Your task to perform on an android device: Clear the cart on target. Image 0: 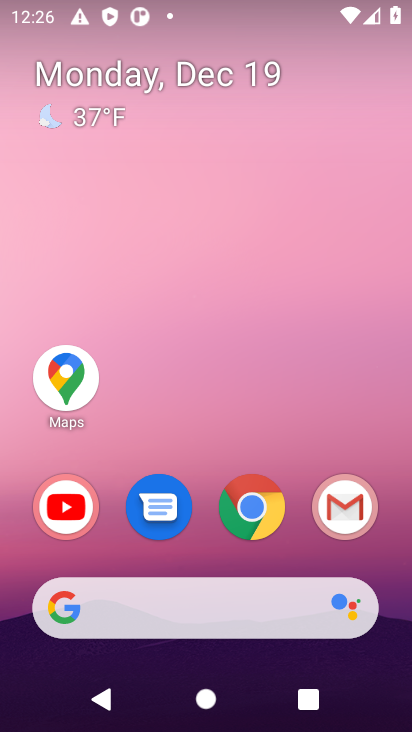
Step 0: click (251, 510)
Your task to perform on an android device: Clear the cart on target. Image 1: 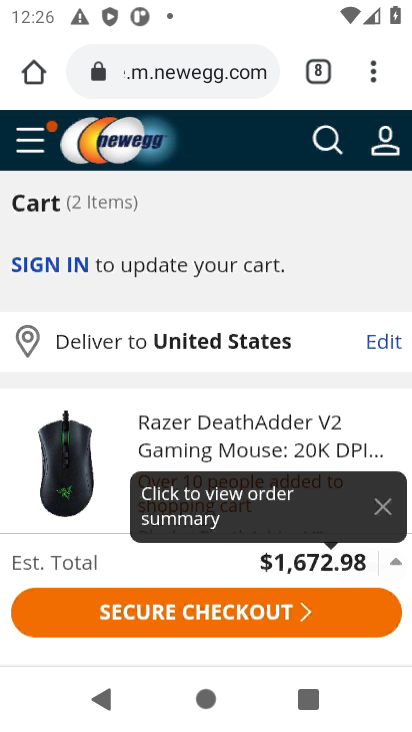
Step 1: click (191, 67)
Your task to perform on an android device: Clear the cart on target. Image 2: 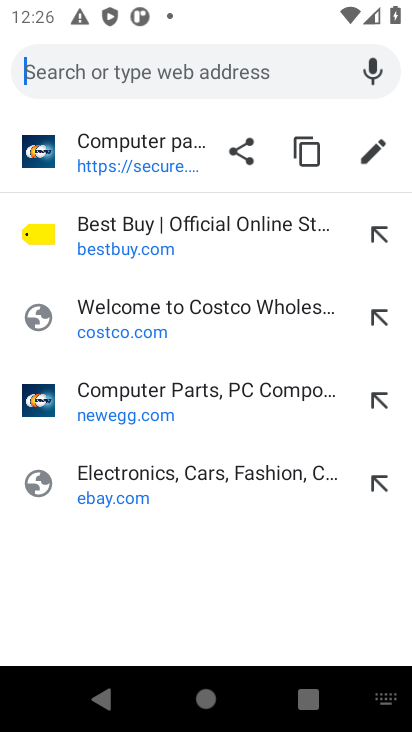
Step 2: type "target.com"
Your task to perform on an android device: Clear the cart on target. Image 3: 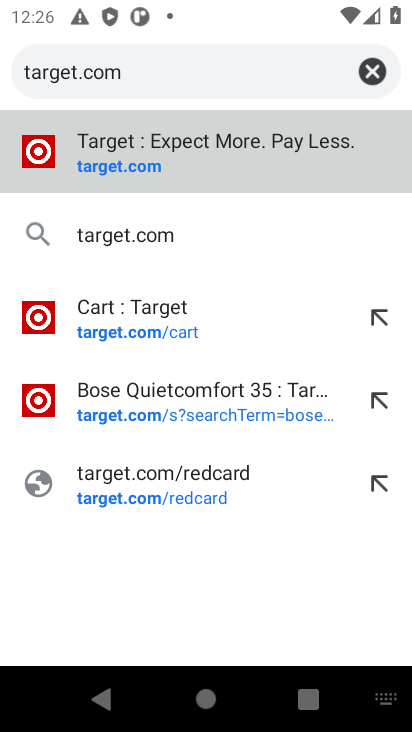
Step 3: click (83, 157)
Your task to perform on an android device: Clear the cart on target. Image 4: 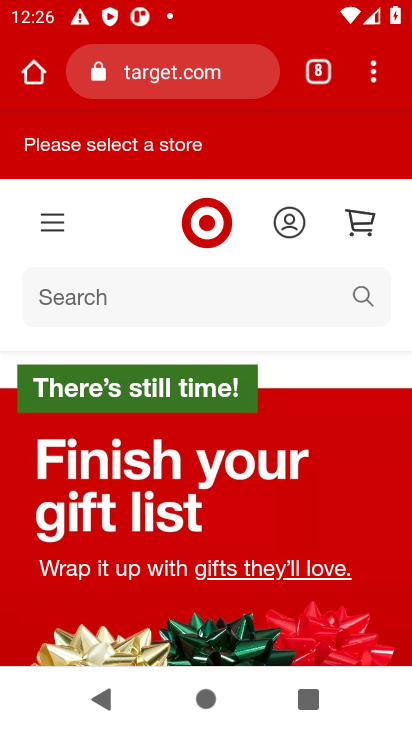
Step 4: click (359, 226)
Your task to perform on an android device: Clear the cart on target. Image 5: 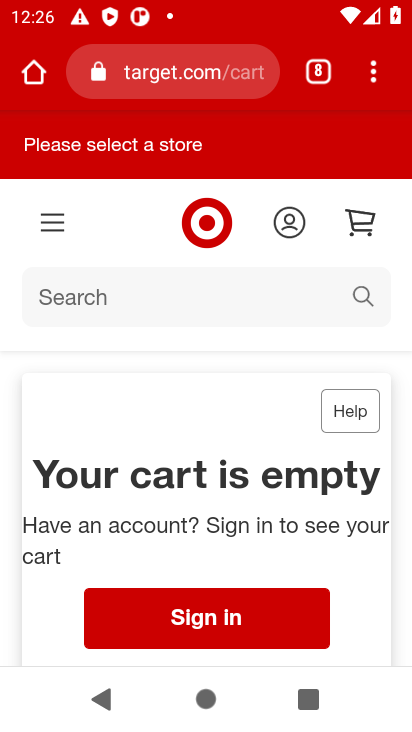
Step 5: task complete